Your task to perform on an android device: Go to ESPN.com Image 0: 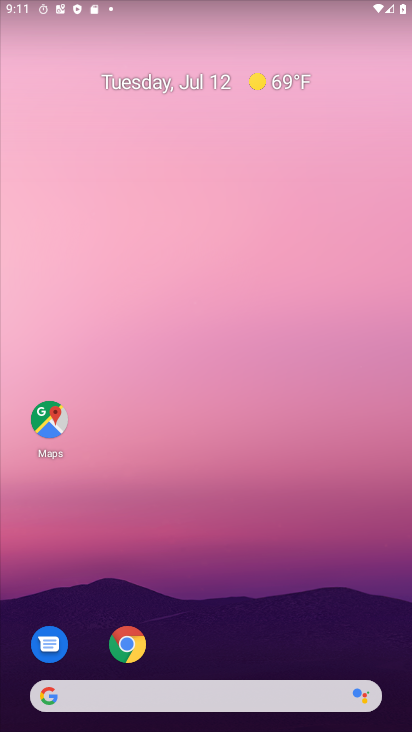
Step 0: drag from (216, 663) to (245, 106)
Your task to perform on an android device: Go to ESPN.com Image 1: 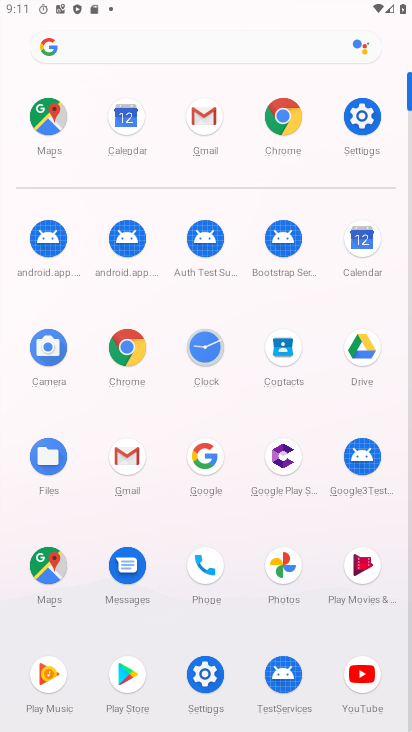
Step 1: click (285, 116)
Your task to perform on an android device: Go to ESPN.com Image 2: 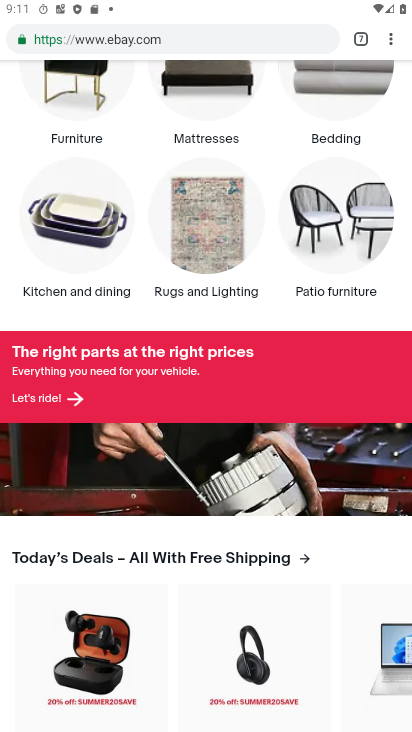
Step 2: drag from (276, 108) to (275, 586)
Your task to perform on an android device: Go to ESPN.com Image 3: 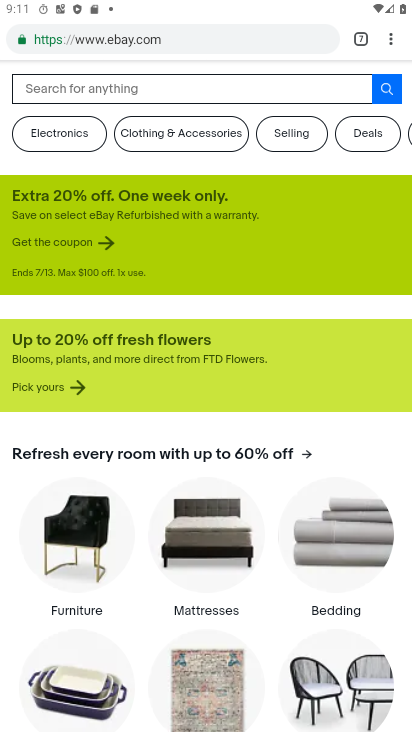
Step 3: click (358, 34)
Your task to perform on an android device: Go to ESPN.com Image 4: 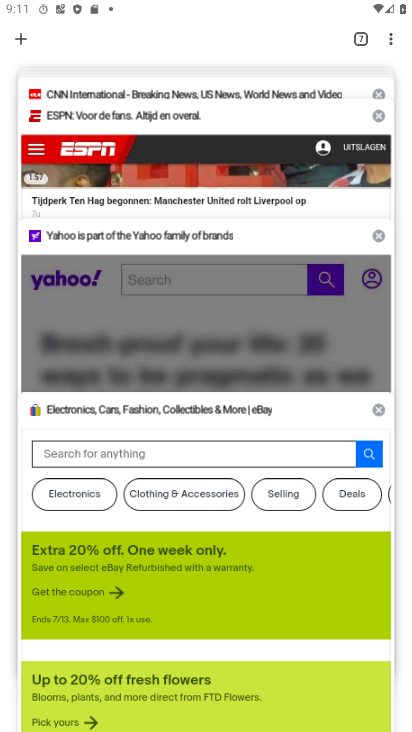
Step 4: click (182, 160)
Your task to perform on an android device: Go to ESPN.com Image 5: 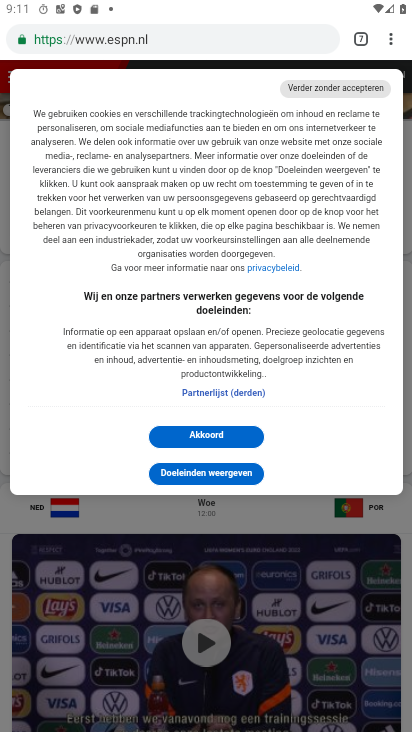
Step 5: click (220, 431)
Your task to perform on an android device: Go to ESPN.com Image 6: 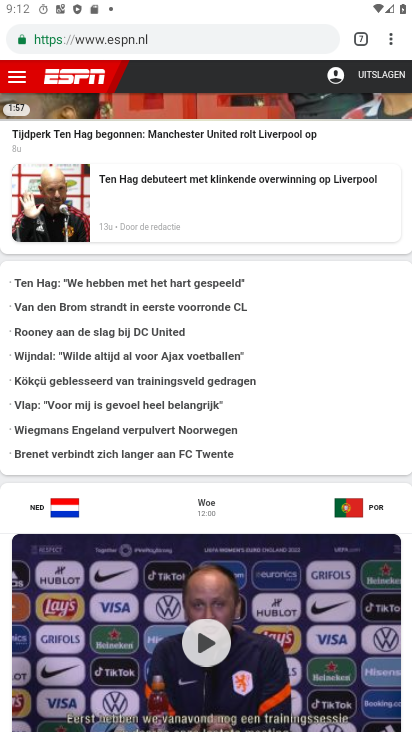
Step 6: task complete